Your task to perform on an android device: allow cookies in the chrome app Image 0: 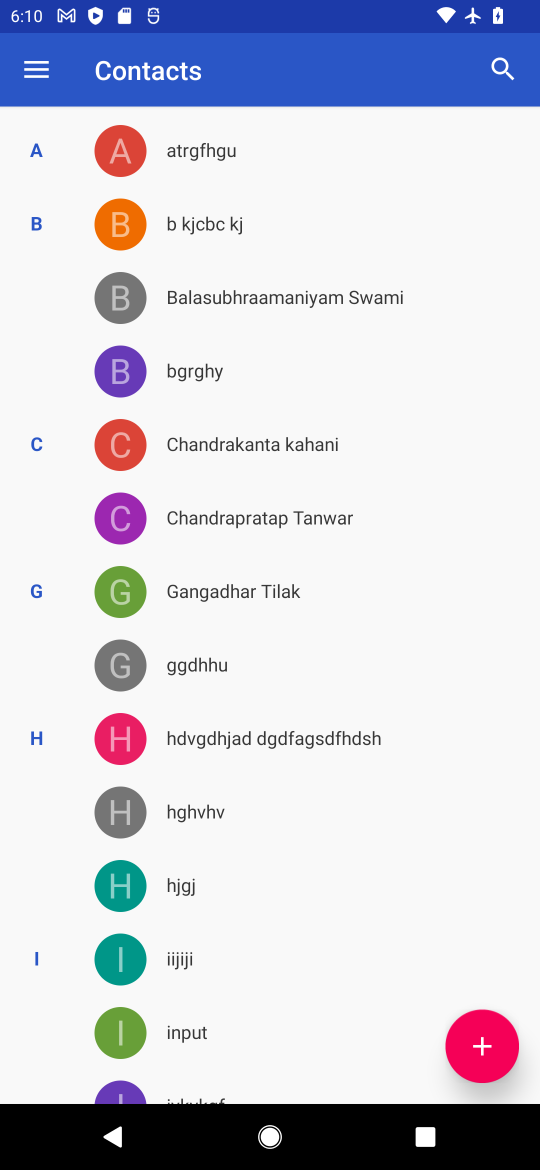
Step 0: press home button
Your task to perform on an android device: allow cookies in the chrome app Image 1: 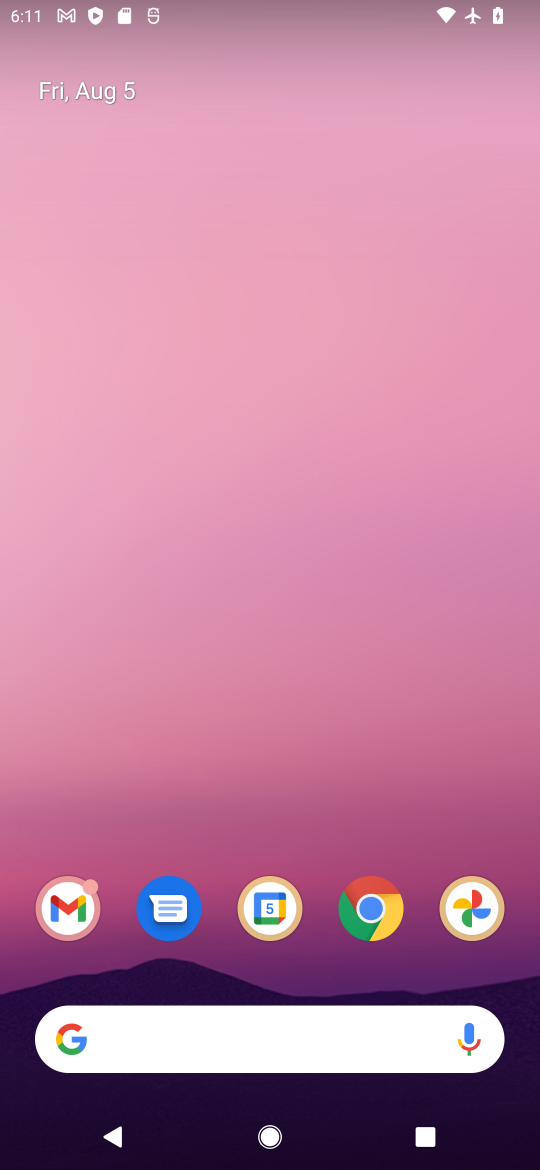
Step 1: click (365, 917)
Your task to perform on an android device: allow cookies in the chrome app Image 2: 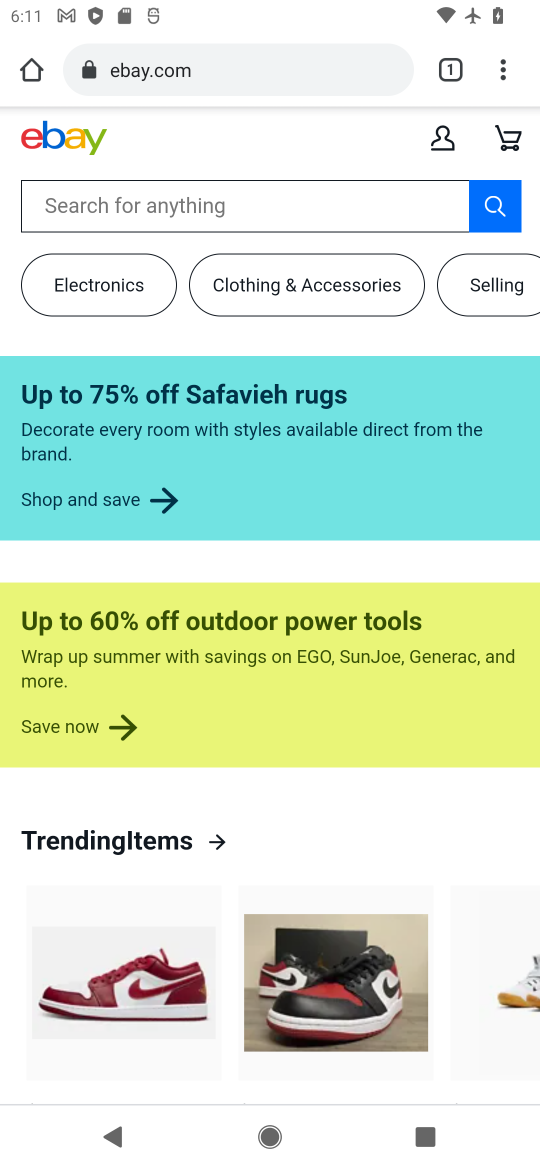
Step 2: click (496, 75)
Your task to perform on an android device: allow cookies in the chrome app Image 3: 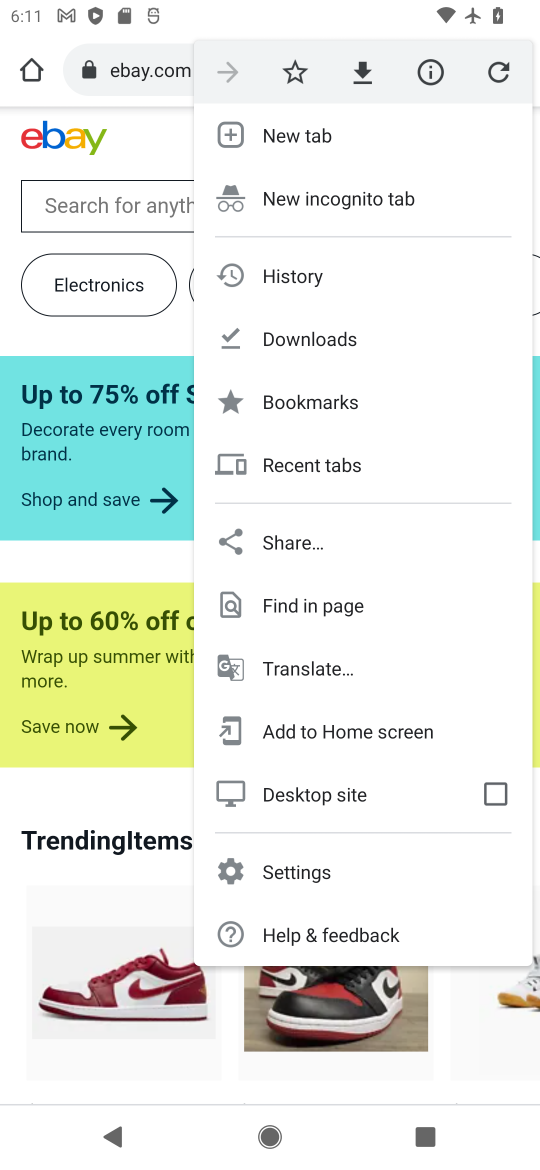
Step 3: click (277, 873)
Your task to perform on an android device: allow cookies in the chrome app Image 4: 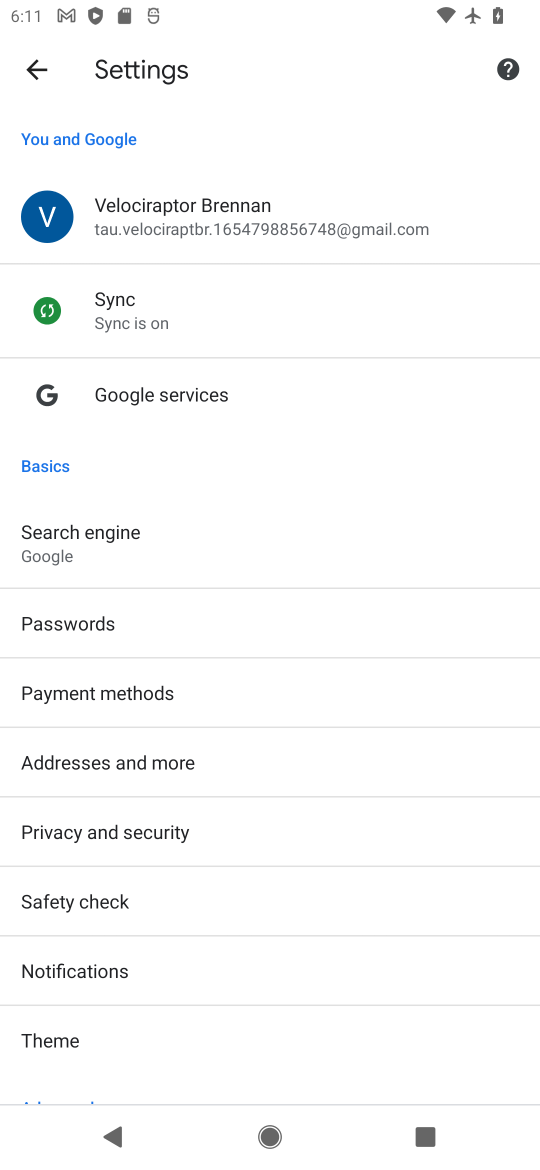
Step 4: drag from (100, 972) to (164, 409)
Your task to perform on an android device: allow cookies in the chrome app Image 5: 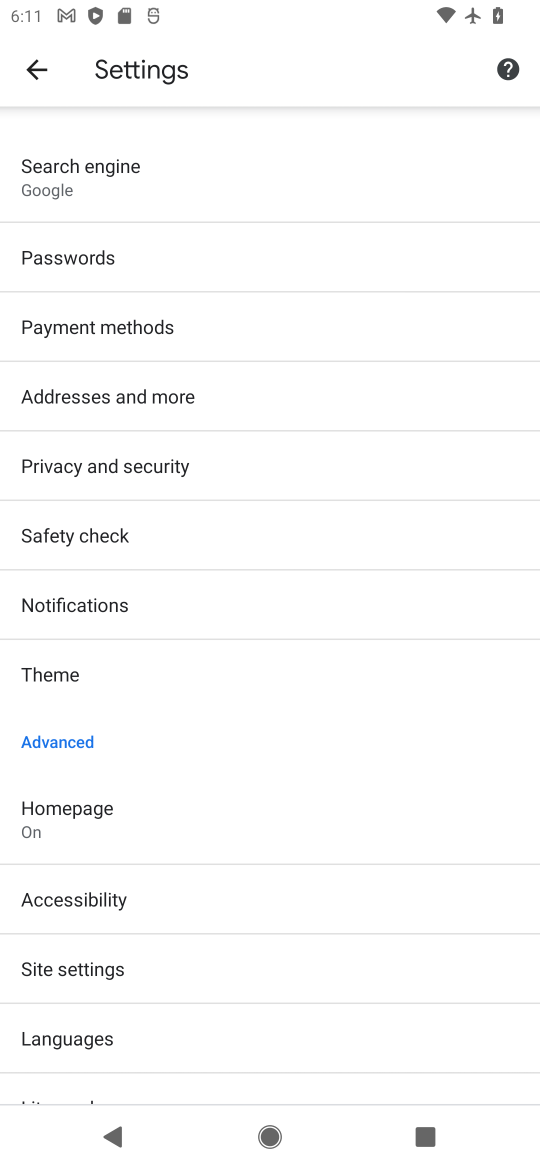
Step 5: click (108, 970)
Your task to perform on an android device: allow cookies in the chrome app Image 6: 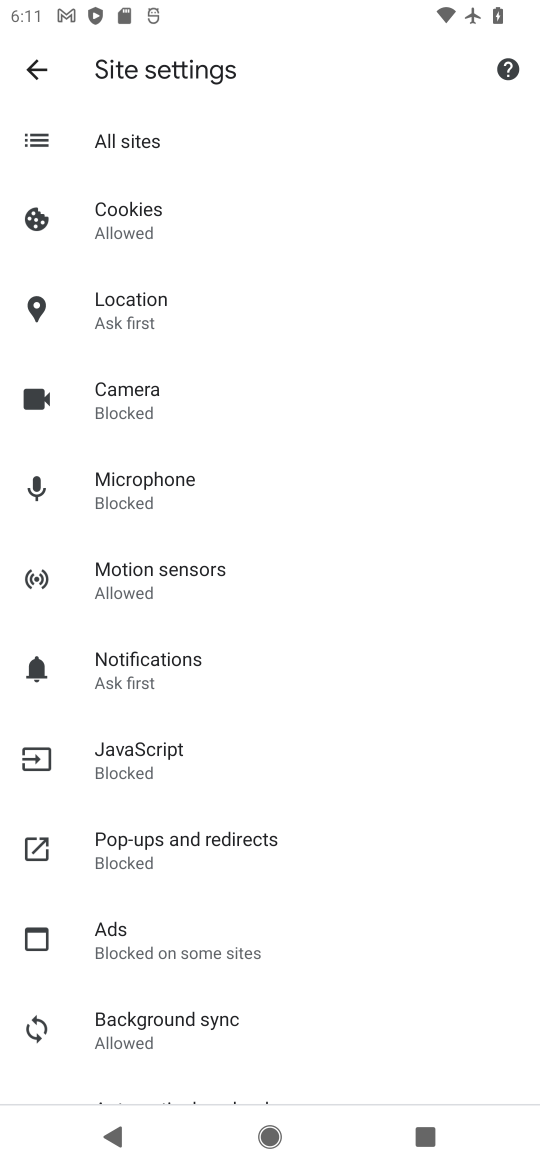
Step 6: click (139, 229)
Your task to perform on an android device: allow cookies in the chrome app Image 7: 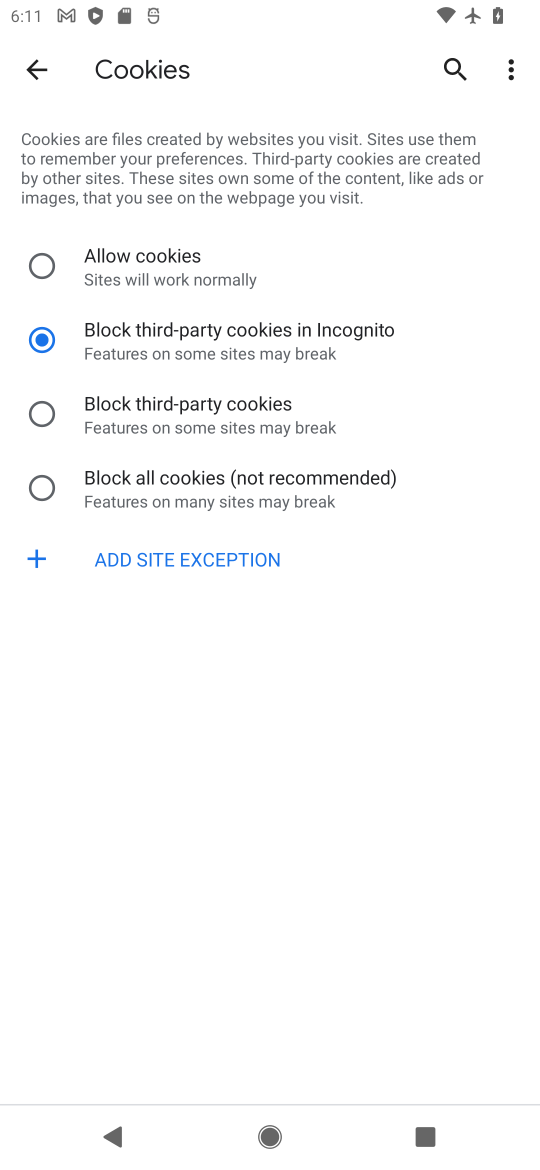
Step 7: click (42, 271)
Your task to perform on an android device: allow cookies in the chrome app Image 8: 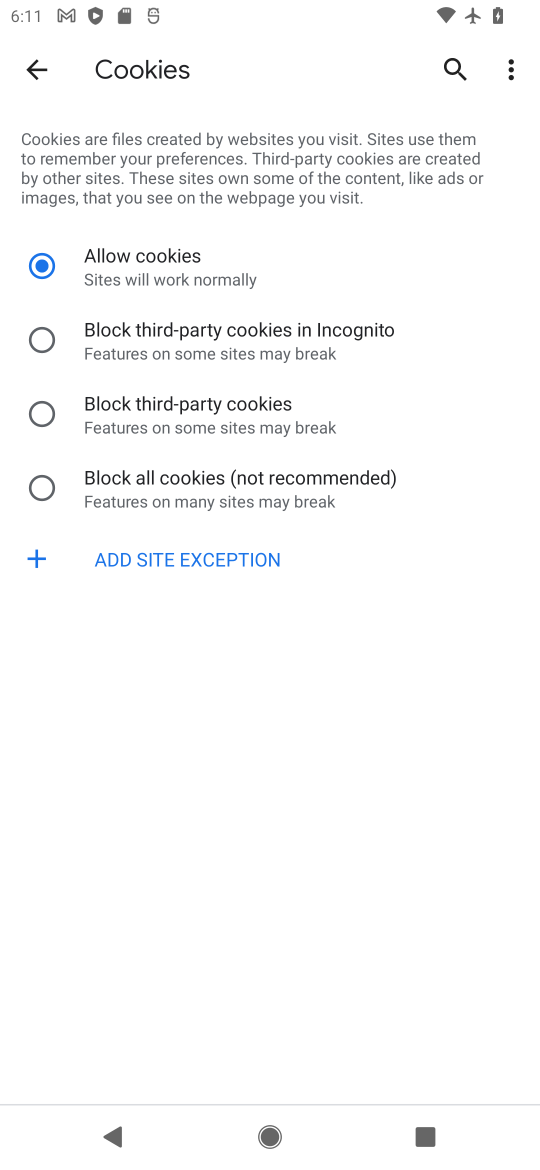
Step 8: task complete